Your task to perform on an android device: stop showing notifications on the lock screen Image 0: 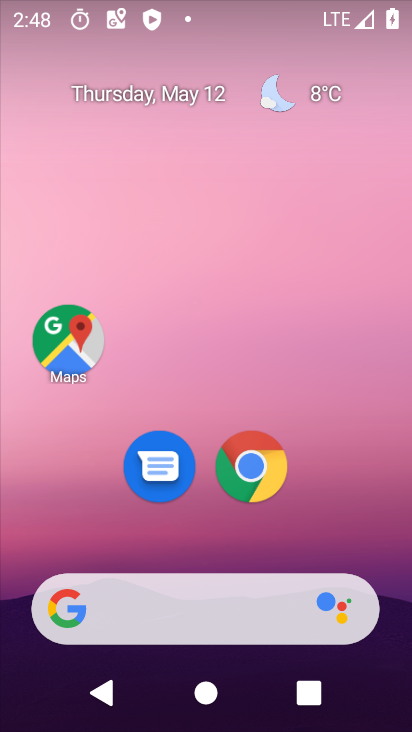
Step 0: drag from (261, 309) to (180, 130)
Your task to perform on an android device: stop showing notifications on the lock screen Image 1: 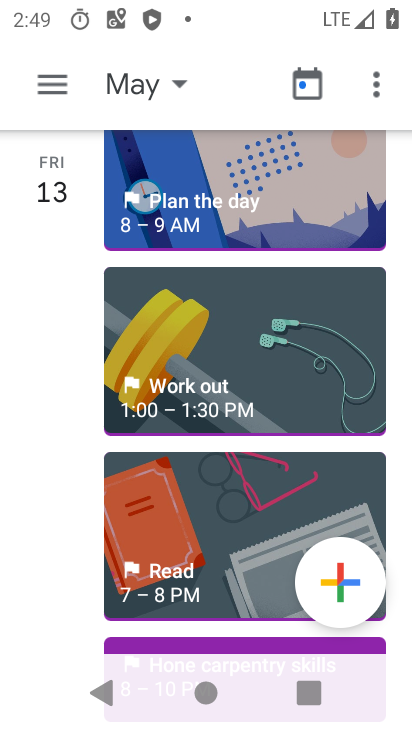
Step 1: press home button
Your task to perform on an android device: stop showing notifications on the lock screen Image 2: 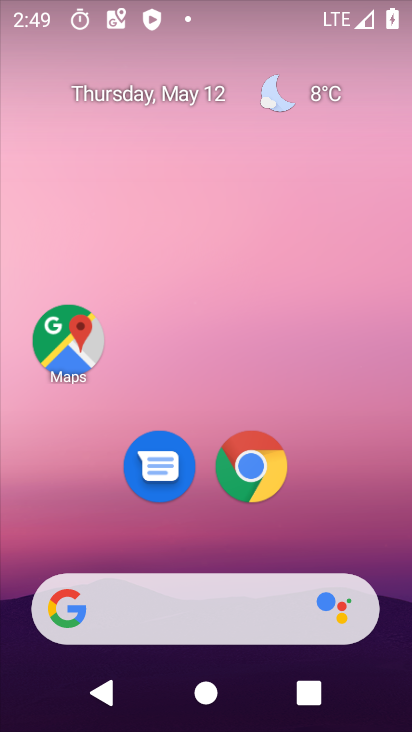
Step 2: drag from (313, 486) to (167, 140)
Your task to perform on an android device: stop showing notifications on the lock screen Image 3: 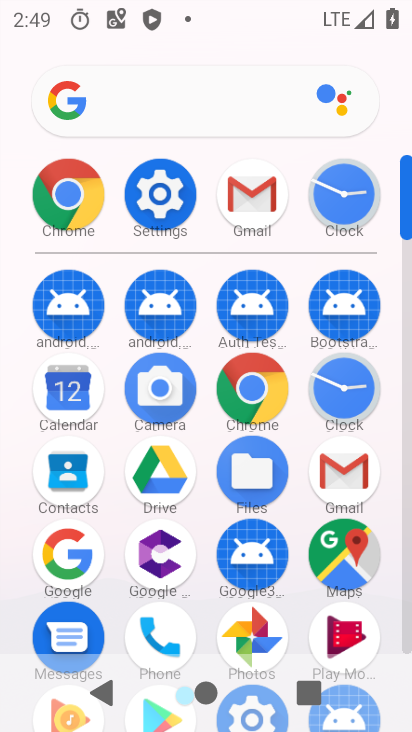
Step 3: click (161, 181)
Your task to perform on an android device: stop showing notifications on the lock screen Image 4: 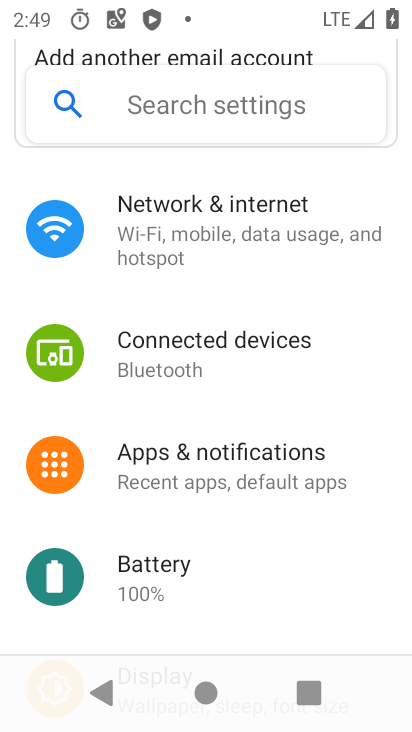
Step 4: click (243, 469)
Your task to perform on an android device: stop showing notifications on the lock screen Image 5: 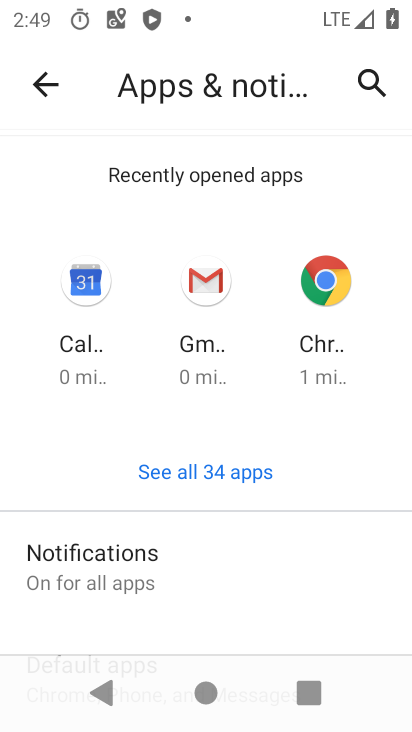
Step 5: drag from (201, 609) to (171, 246)
Your task to perform on an android device: stop showing notifications on the lock screen Image 6: 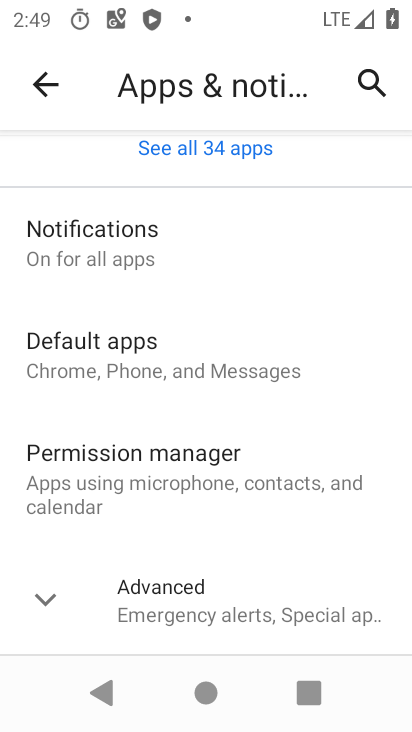
Step 6: click (103, 250)
Your task to perform on an android device: stop showing notifications on the lock screen Image 7: 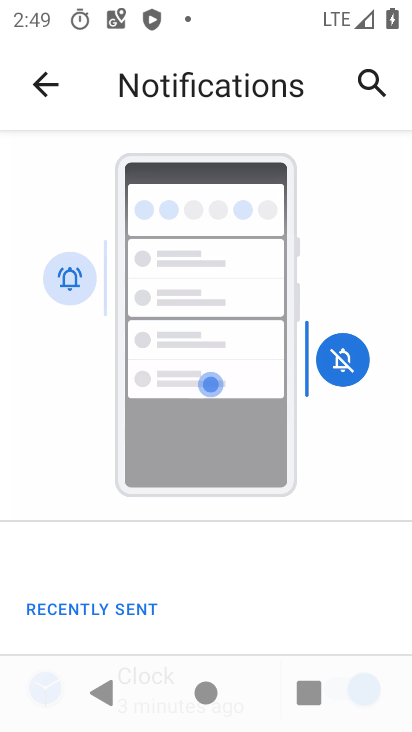
Step 7: drag from (137, 568) to (156, 250)
Your task to perform on an android device: stop showing notifications on the lock screen Image 8: 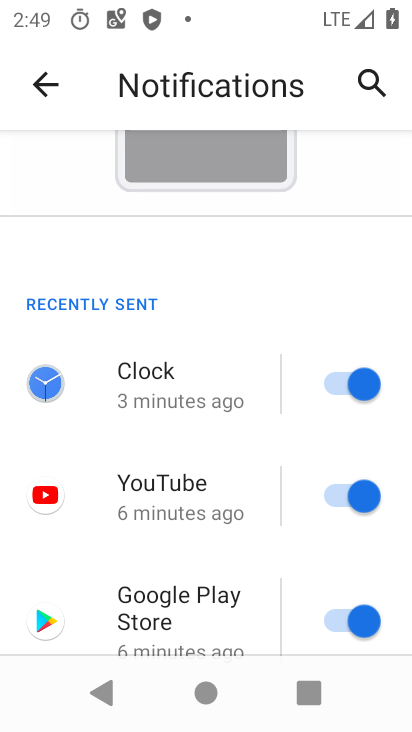
Step 8: drag from (124, 586) to (82, 255)
Your task to perform on an android device: stop showing notifications on the lock screen Image 9: 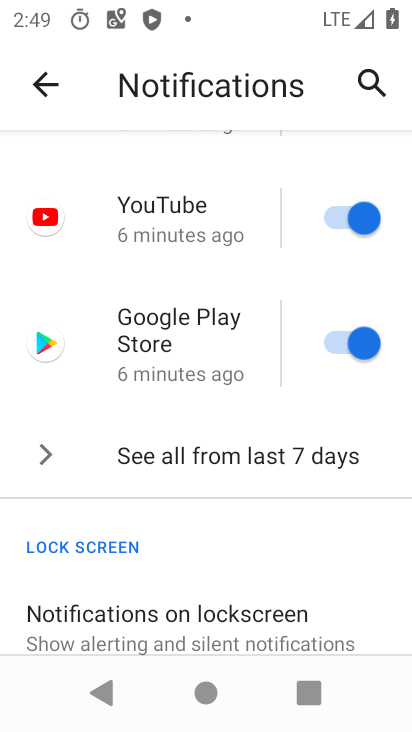
Step 9: click (139, 621)
Your task to perform on an android device: stop showing notifications on the lock screen Image 10: 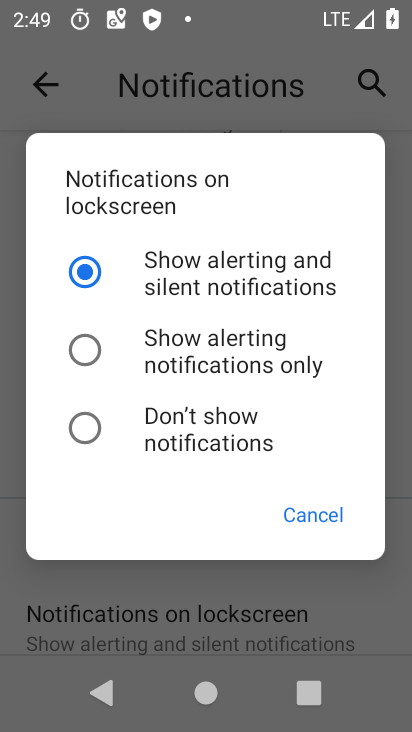
Step 10: click (80, 425)
Your task to perform on an android device: stop showing notifications on the lock screen Image 11: 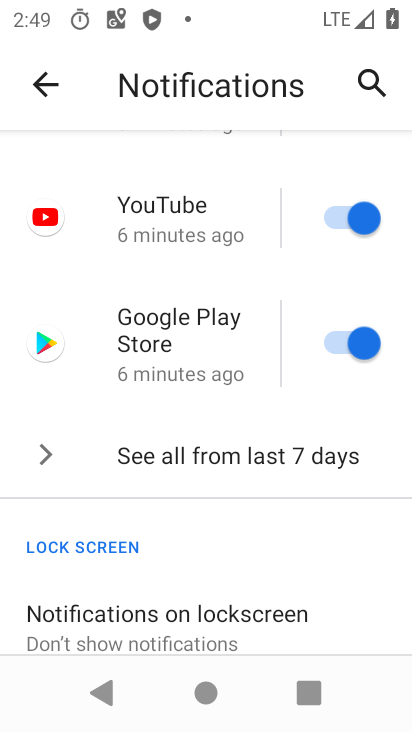
Step 11: task complete